Your task to perform on an android device: Show me recent news Image 0: 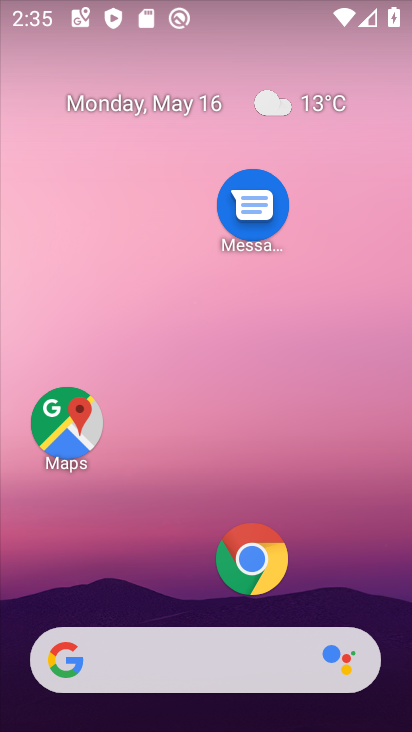
Step 0: click (254, 556)
Your task to perform on an android device: Show me recent news Image 1: 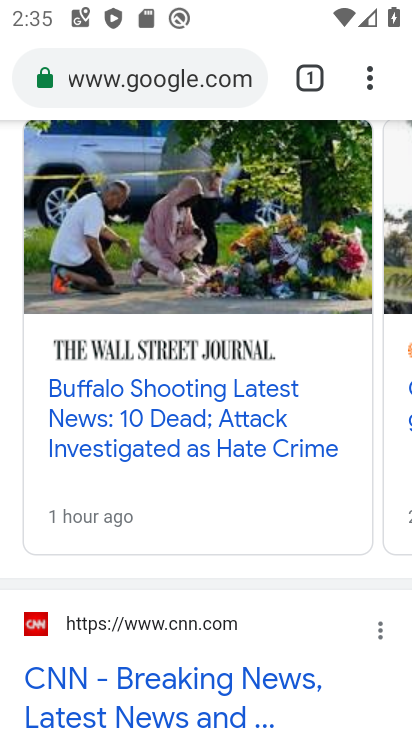
Step 1: click (129, 89)
Your task to perform on an android device: Show me recent news Image 2: 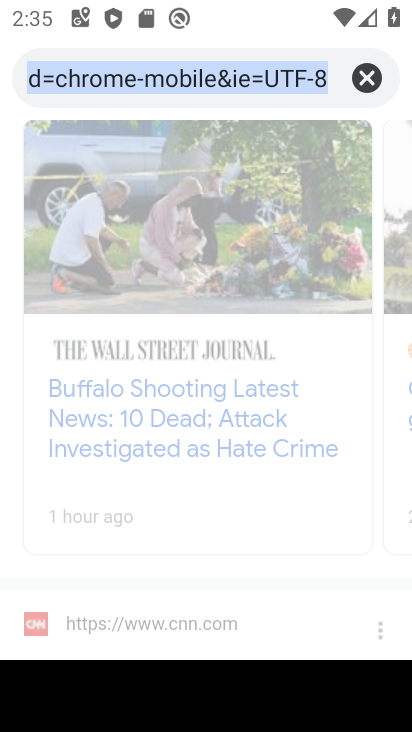
Step 2: type "news"
Your task to perform on an android device: Show me recent news Image 3: 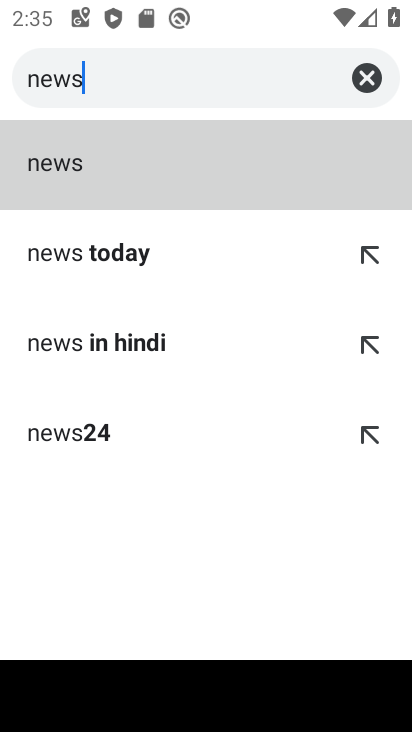
Step 3: click (150, 155)
Your task to perform on an android device: Show me recent news Image 4: 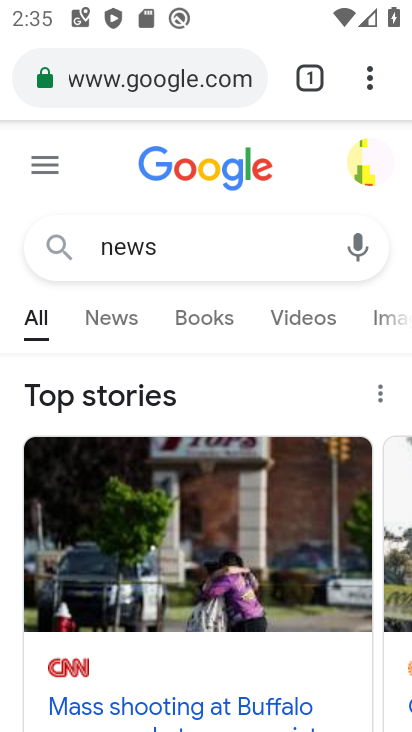
Step 4: task complete